Your task to perform on an android device: turn notification dots on Image 0: 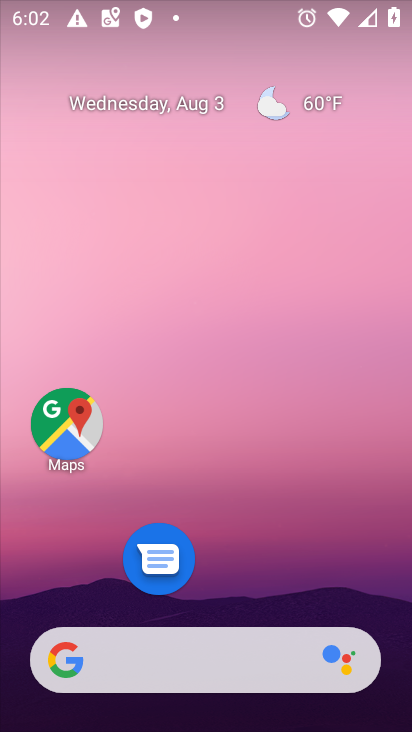
Step 0: drag from (177, 554) to (177, 369)
Your task to perform on an android device: turn notification dots on Image 1: 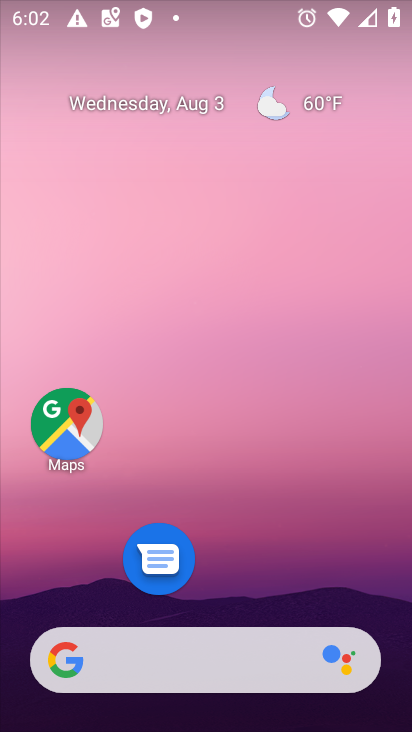
Step 1: drag from (189, 610) to (246, 201)
Your task to perform on an android device: turn notification dots on Image 2: 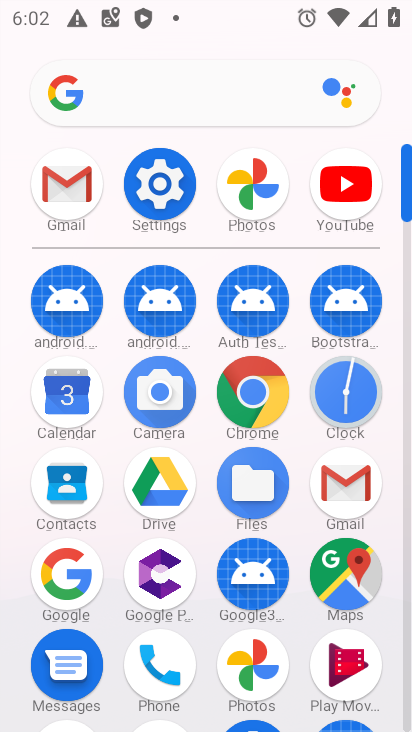
Step 2: click (167, 182)
Your task to perform on an android device: turn notification dots on Image 3: 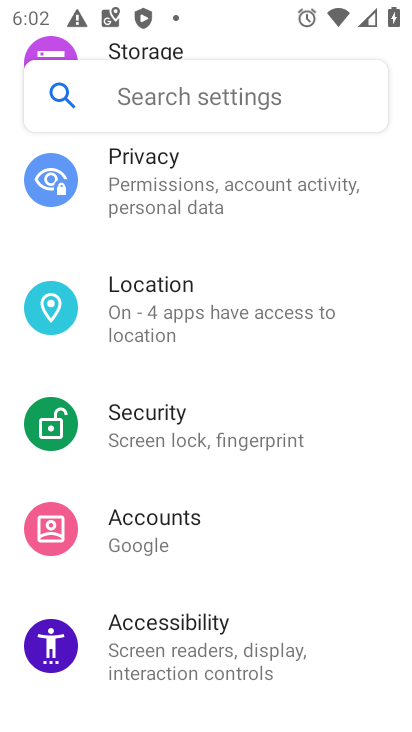
Step 3: drag from (228, 233) to (242, 625)
Your task to perform on an android device: turn notification dots on Image 4: 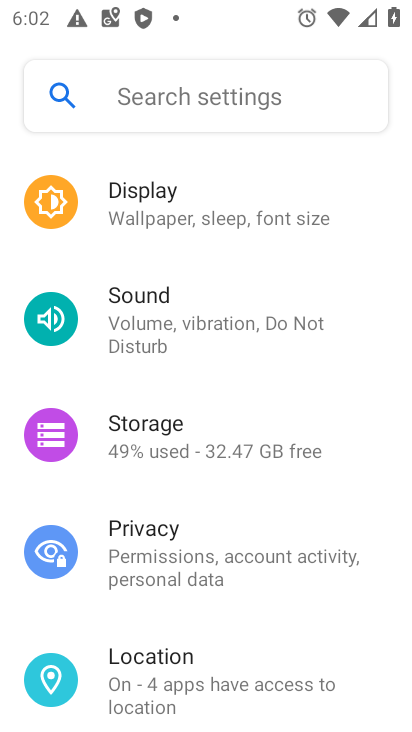
Step 4: drag from (202, 173) to (227, 521)
Your task to perform on an android device: turn notification dots on Image 5: 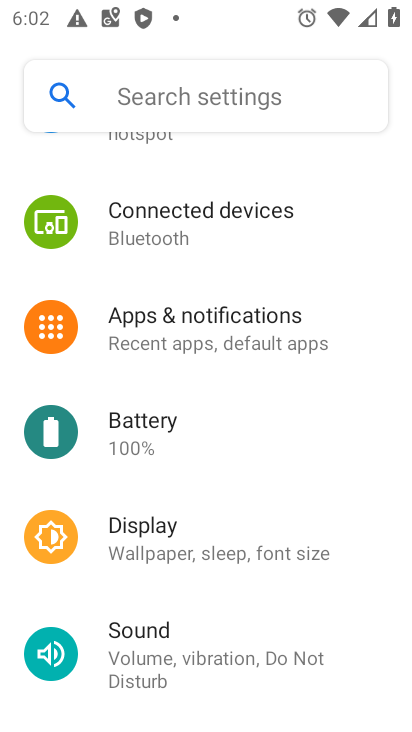
Step 5: click (223, 322)
Your task to perform on an android device: turn notification dots on Image 6: 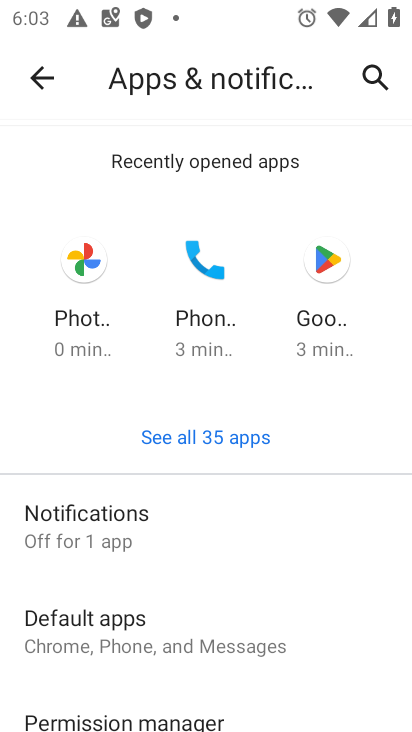
Step 6: drag from (161, 716) to (205, 261)
Your task to perform on an android device: turn notification dots on Image 7: 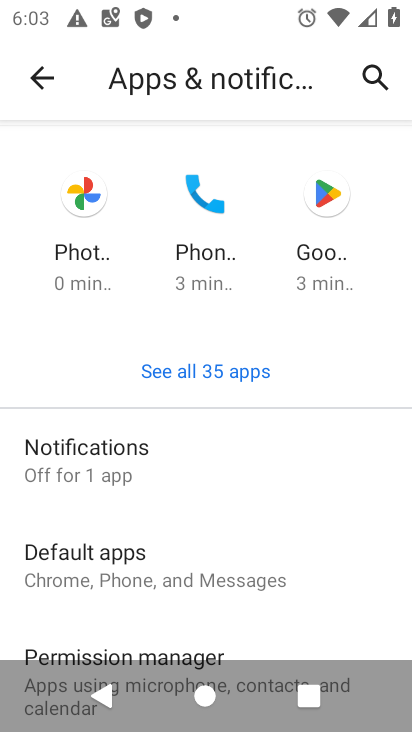
Step 7: click (111, 453)
Your task to perform on an android device: turn notification dots on Image 8: 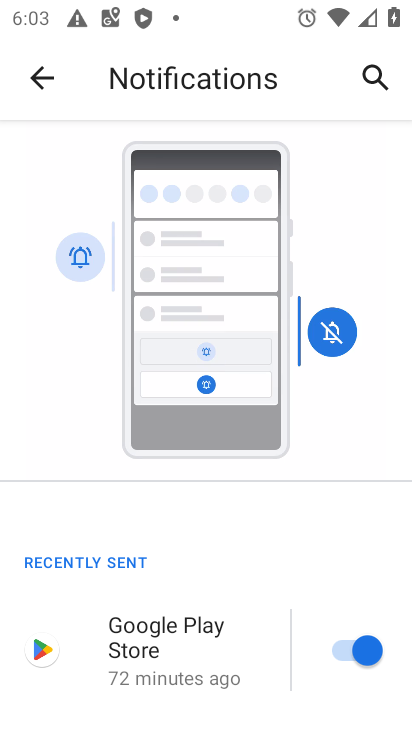
Step 8: drag from (281, 528) to (335, 152)
Your task to perform on an android device: turn notification dots on Image 9: 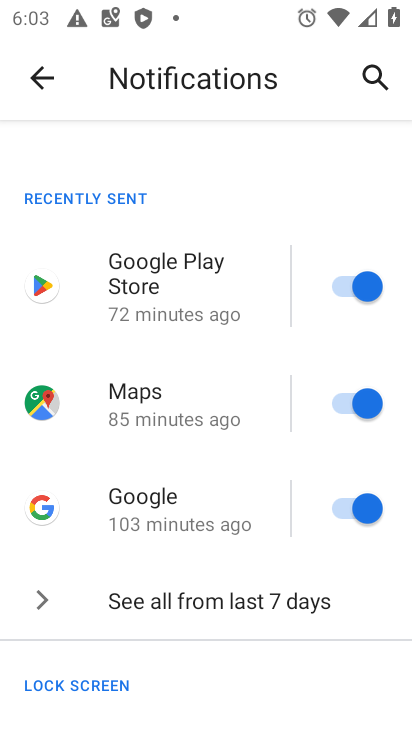
Step 9: drag from (211, 680) to (247, 287)
Your task to perform on an android device: turn notification dots on Image 10: 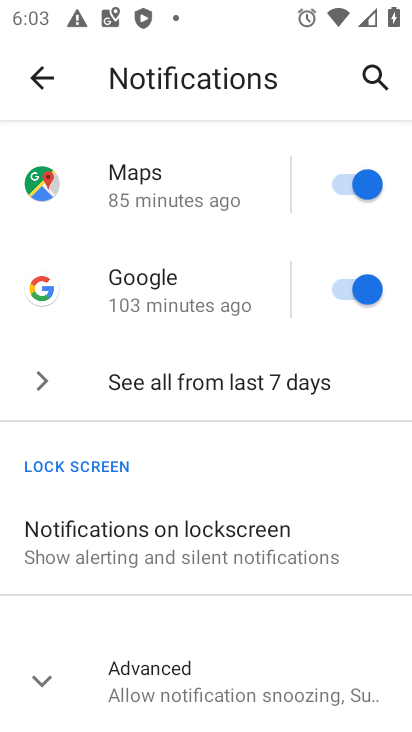
Step 10: click (160, 678)
Your task to perform on an android device: turn notification dots on Image 11: 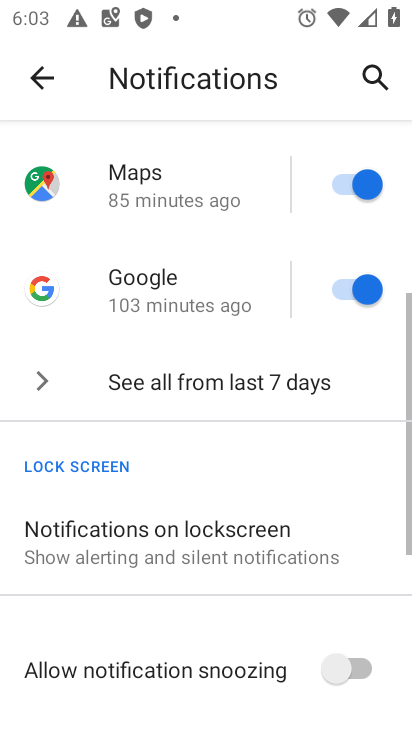
Step 11: drag from (221, 692) to (273, 277)
Your task to perform on an android device: turn notification dots on Image 12: 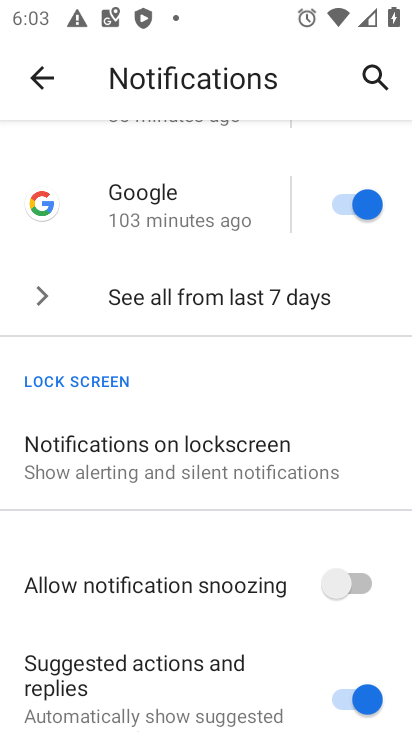
Step 12: drag from (218, 699) to (249, 257)
Your task to perform on an android device: turn notification dots on Image 13: 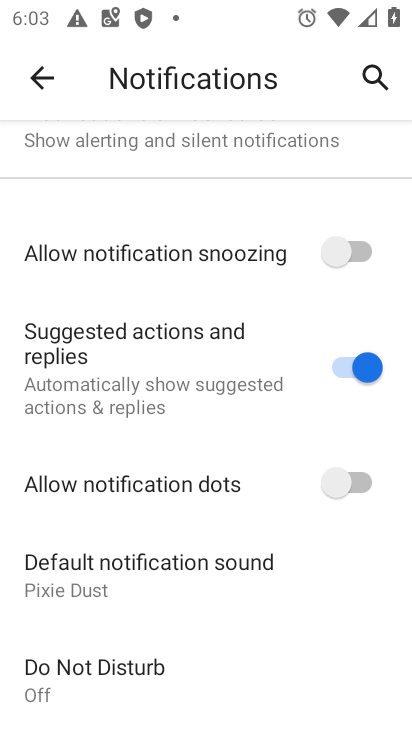
Step 13: click (356, 486)
Your task to perform on an android device: turn notification dots on Image 14: 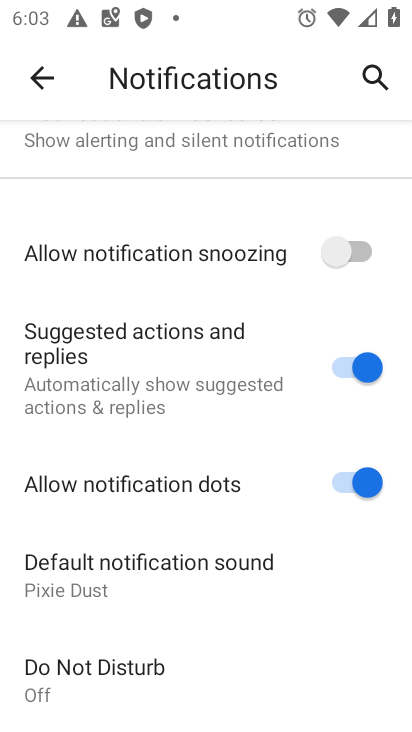
Step 14: task complete